Your task to perform on an android device: turn on the 12-hour format for clock Image 0: 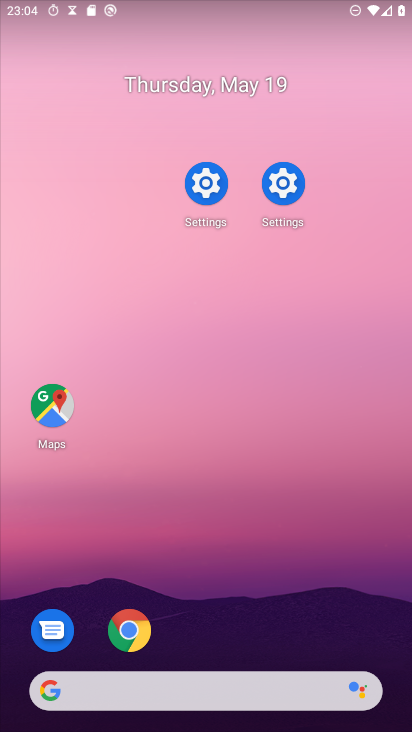
Step 0: drag from (271, 460) to (221, 4)
Your task to perform on an android device: turn on the 12-hour format for clock Image 1: 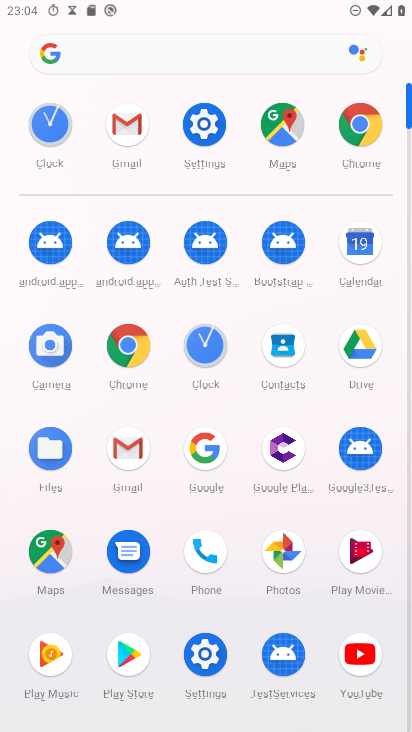
Step 1: click (203, 339)
Your task to perform on an android device: turn on the 12-hour format for clock Image 2: 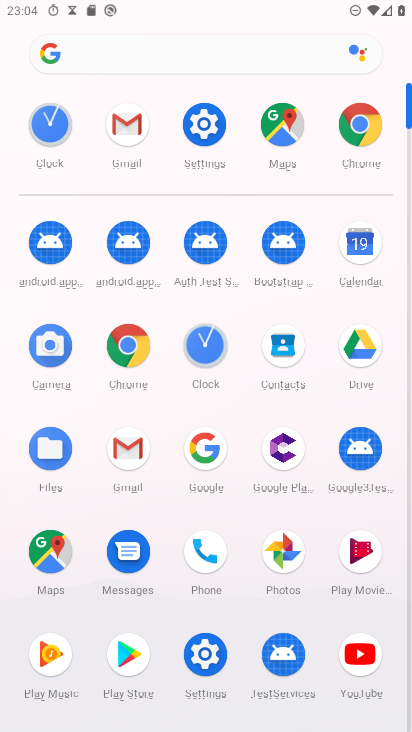
Step 2: click (203, 339)
Your task to perform on an android device: turn on the 12-hour format for clock Image 3: 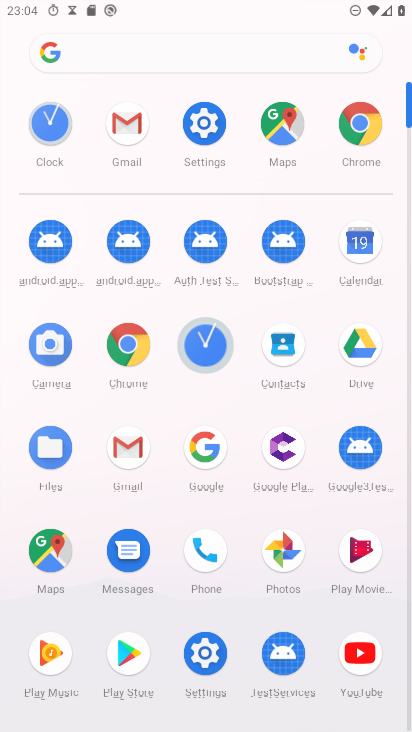
Step 3: click (203, 339)
Your task to perform on an android device: turn on the 12-hour format for clock Image 4: 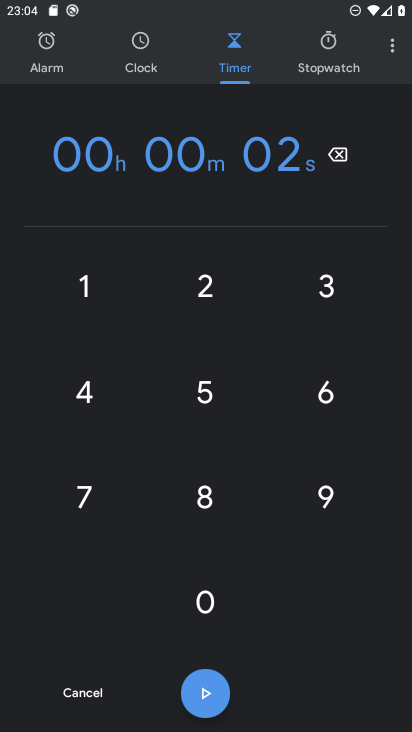
Step 4: click (383, 42)
Your task to perform on an android device: turn on the 12-hour format for clock Image 5: 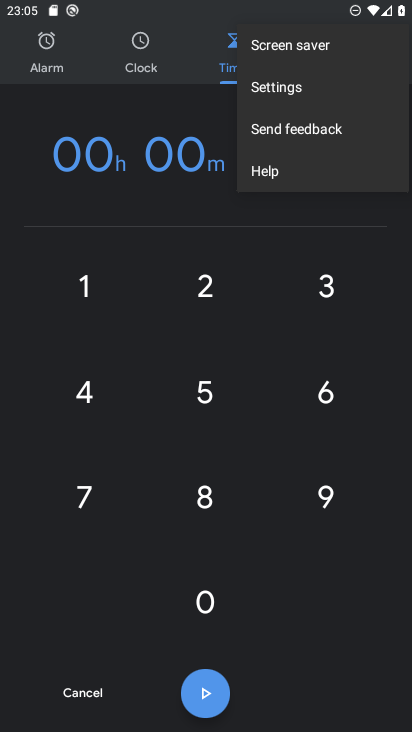
Step 5: click (280, 90)
Your task to perform on an android device: turn on the 12-hour format for clock Image 6: 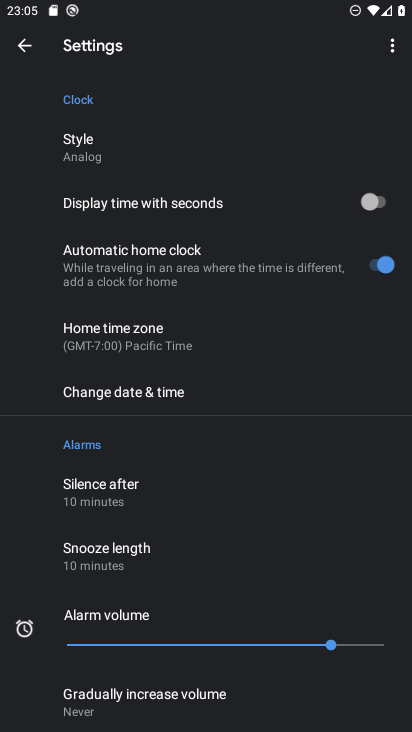
Step 6: click (133, 387)
Your task to perform on an android device: turn on the 12-hour format for clock Image 7: 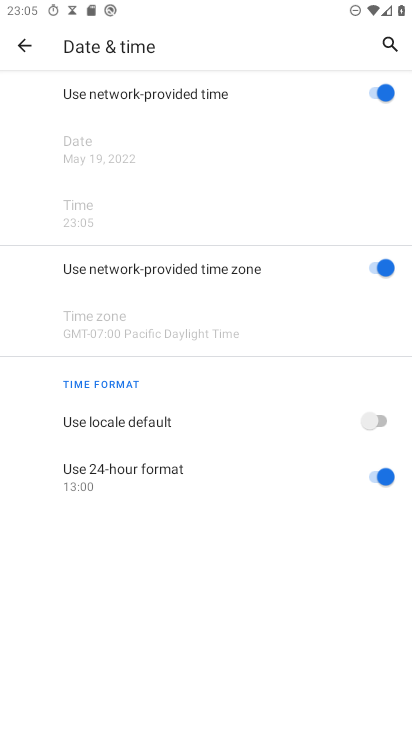
Step 7: click (372, 418)
Your task to perform on an android device: turn on the 12-hour format for clock Image 8: 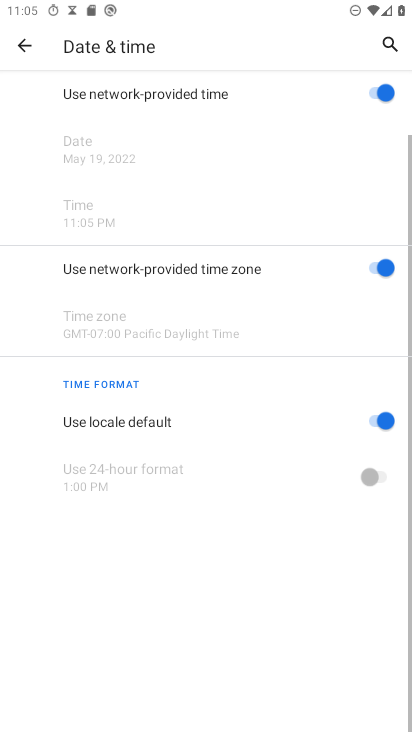
Step 8: click (385, 476)
Your task to perform on an android device: turn on the 12-hour format for clock Image 9: 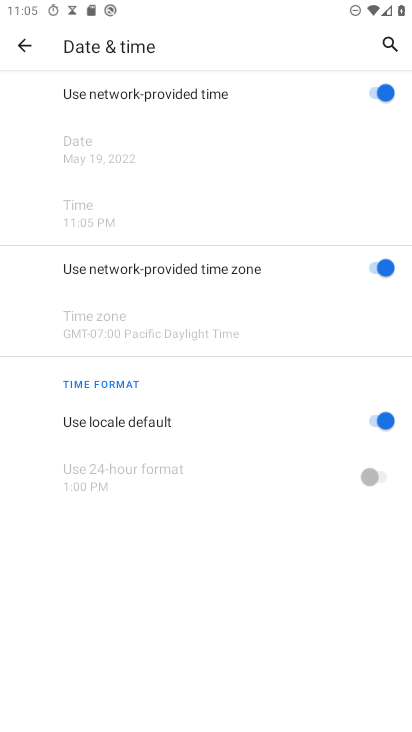
Step 9: task complete